Your task to perform on an android device: Find coffee shops on Maps Image 0: 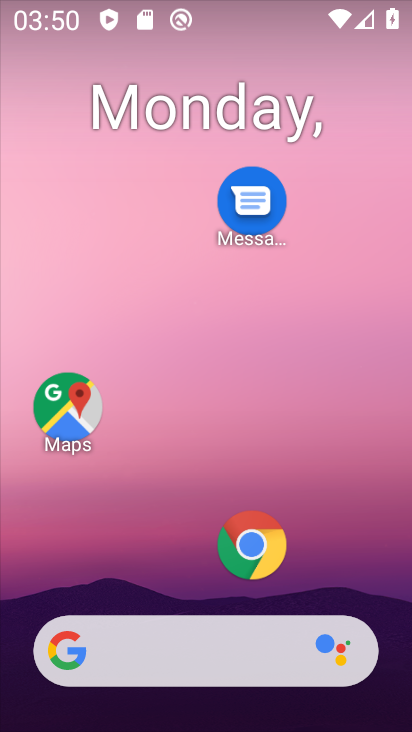
Step 0: click (81, 404)
Your task to perform on an android device: Find coffee shops on Maps Image 1: 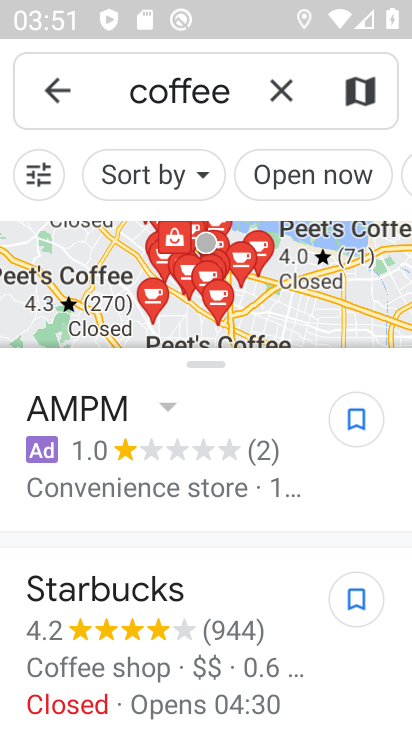
Step 1: task complete